Your task to perform on an android device: toggle notifications settings in the gmail app Image 0: 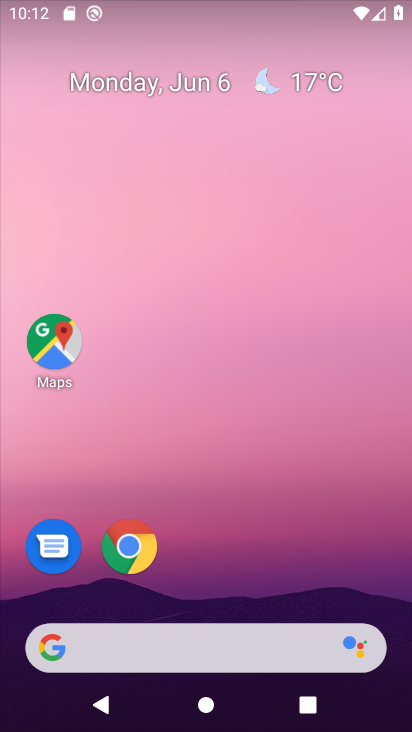
Step 0: drag from (233, 608) to (305, 0)
Your task to perform on an android device: toggle notifications settings in the gmail app Image 1: 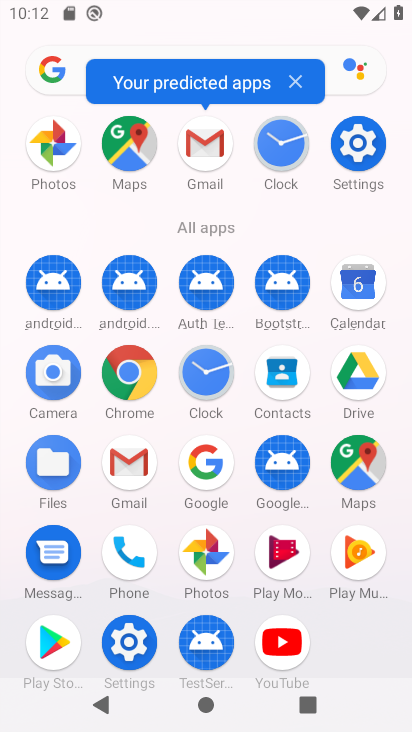
Step 1: click (134, 482)
Your task to perform on an android device: toggle notifications settings in the gmail app Image 2: 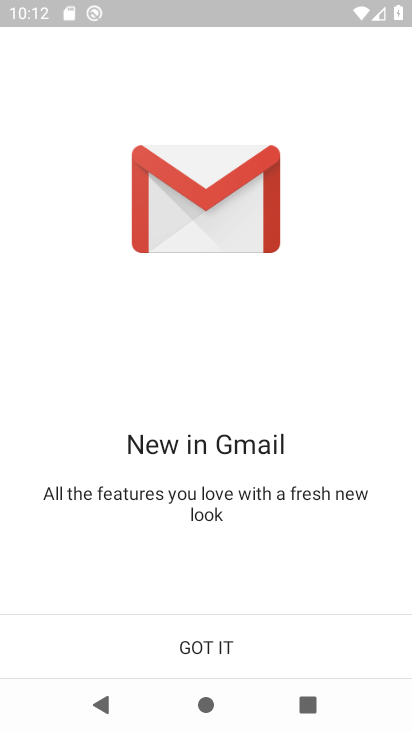
Step 2: click (220, 642)
Your task to perform on an android device: toggle notifications settings in the gmail app Image 3: 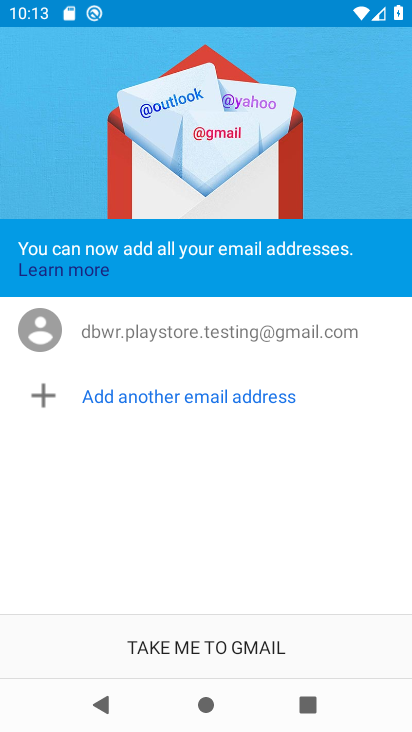
Step 3: click (220, 642)
Your task to perform on an android device: toggle notifications settings in the gmail app Image 4: 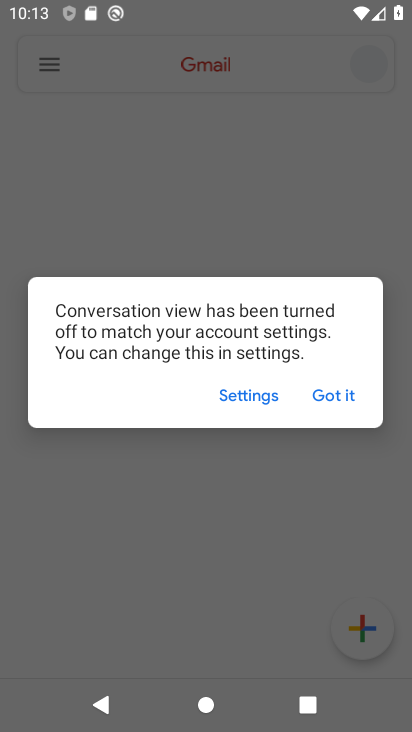
Step 4: click (336, 394)
Your task to perform on an android device: toggle notifications settings in the gmail app Image 5: 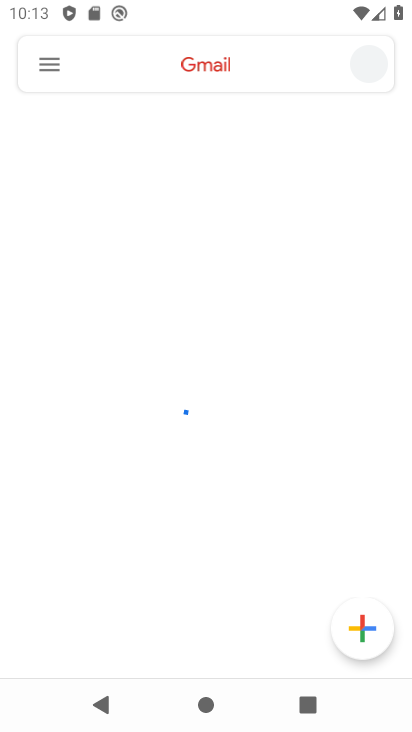
Step 5: click (34, 70)
Your task to perform on an android device: toggle notifications settings in the gmail app Image 6: 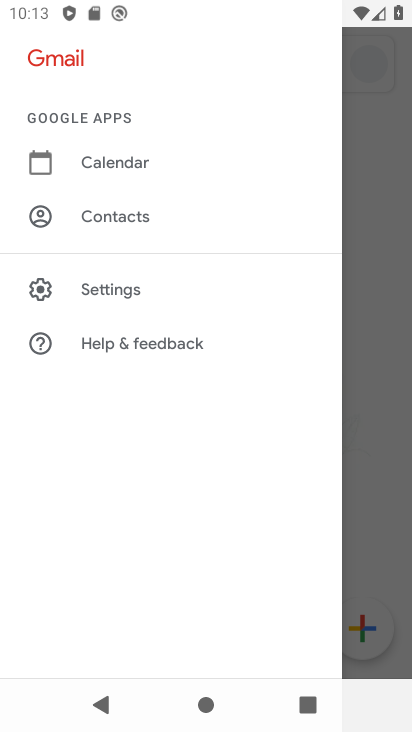
Step 6: click (128, 300)
Your task to perform on an android device: toggle notifications settings in the gmail app Image 7: 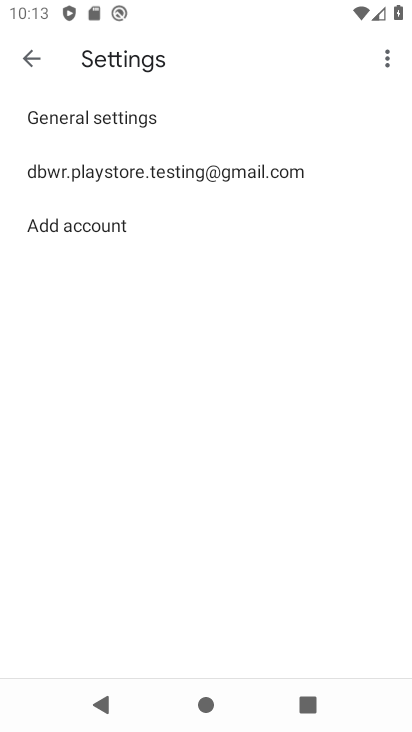
Step 7: click (141, 119)
Your task to perform on an android device: toggle notifications settings in the gmail app Image 8: 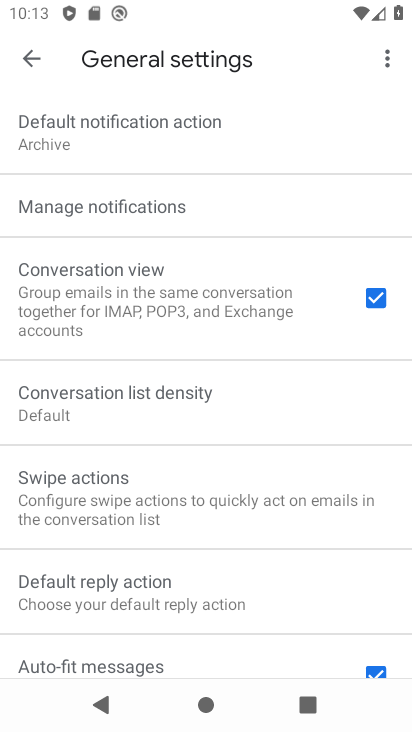
Step 8: click (149, 216)
Your task to perform on an android device: toggle notifications settings in the gmail app Image 9: 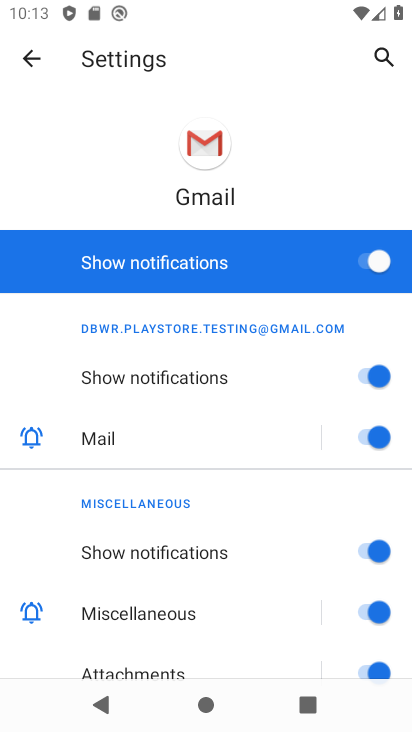
Step 9: click (335, 278)
Your task to perform on an android device: toggle notifications settings in the gmail app Image 10: 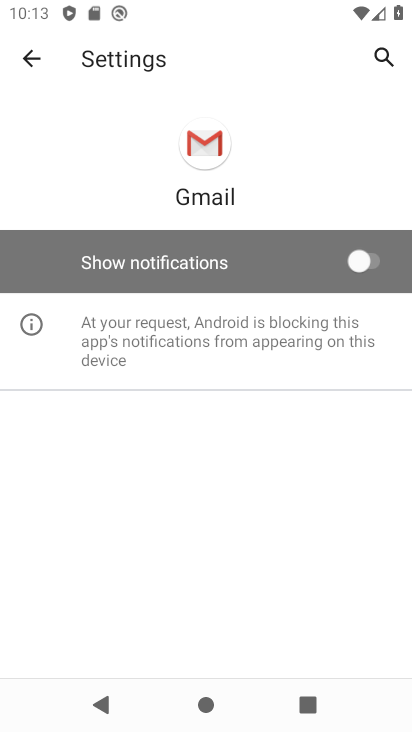
Step 10: task complete